Your task to perform on an android device: delete a single message in the gmail app Image 0: 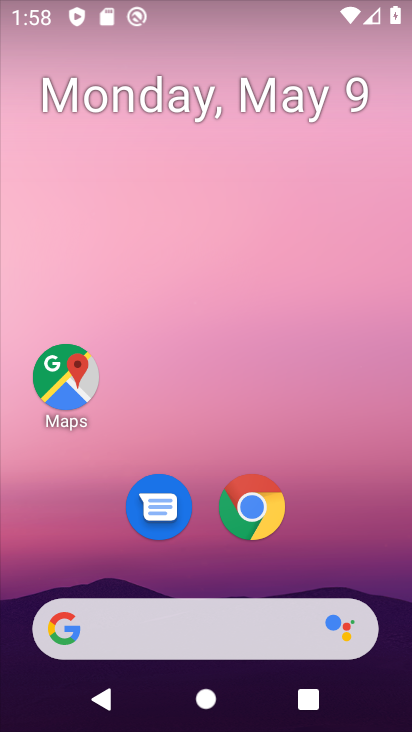
Step 0: drag from (216, 427) to (272, 52)
Your task to perform on an android device: delete a single message in the gmail app Image 1: 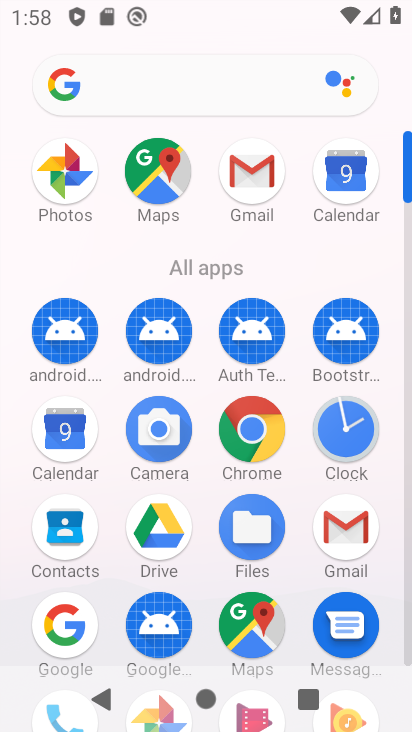
Step 1: click (250, 146)
Your task to perform on an android device: delete a single message in the gmail app Image 2: 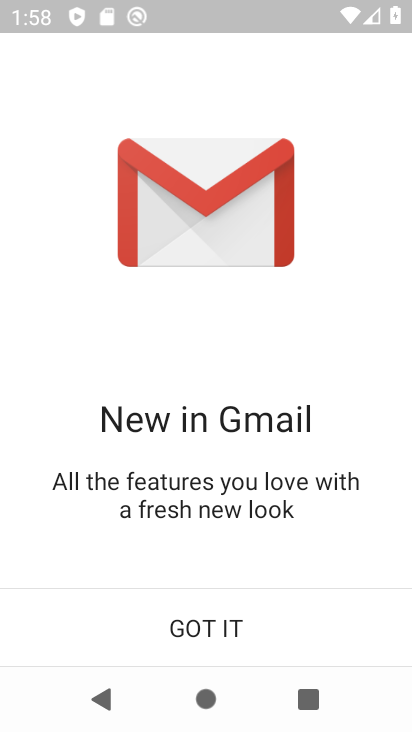
Step 2: click (192, 657)
Your task to perform on an android device: delete a single message in the gmail app Image 3: 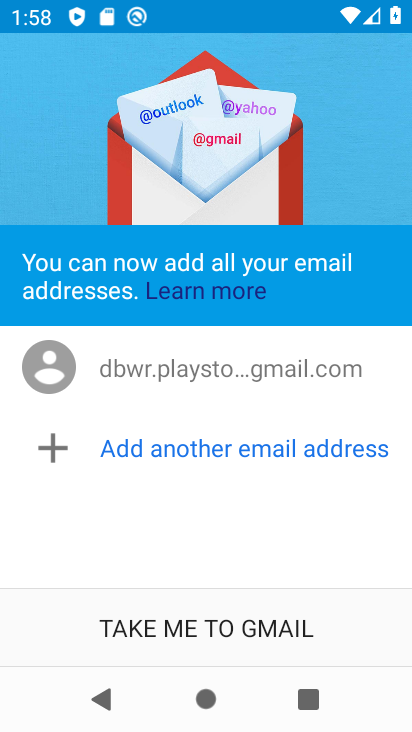
Step 3: click (192, 657)
Your task to perform on an android device: delete a single message in the gmail app Image 4: 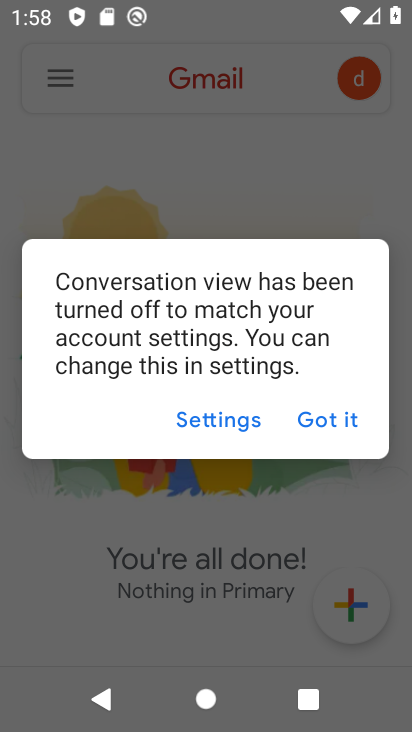
Step 4: click (309, 423)
Your task to perform on an android device: delete a single message in the gmail app Image 5: 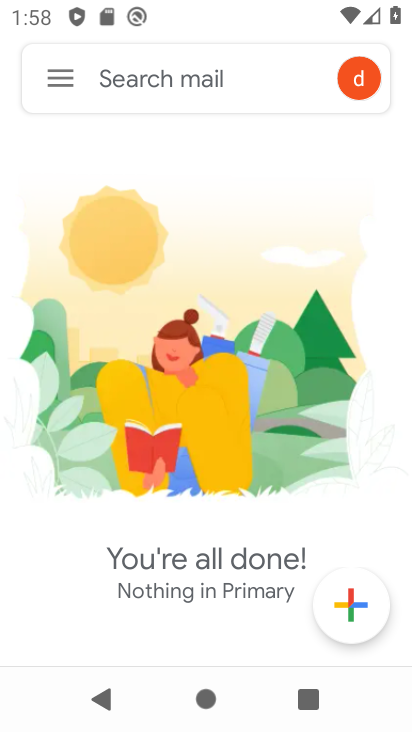
Step 5: task complete